Your task to perform on an android device: turn off airplane mode Image 0: 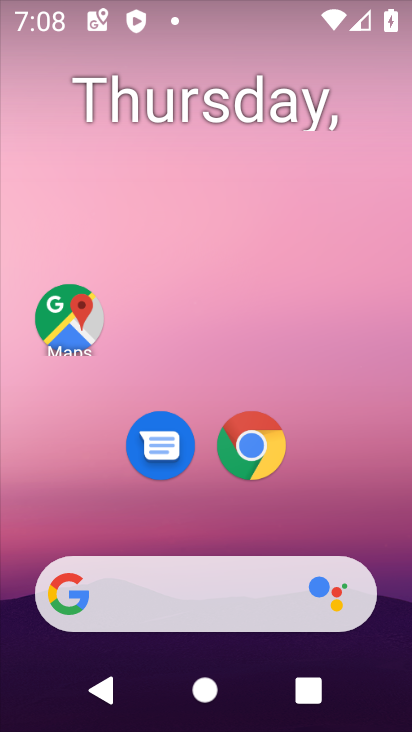
Step 0: drag from (351, 381) to (353, 269)
Your task to perform on an android device: turn off airplane mode Image 1: 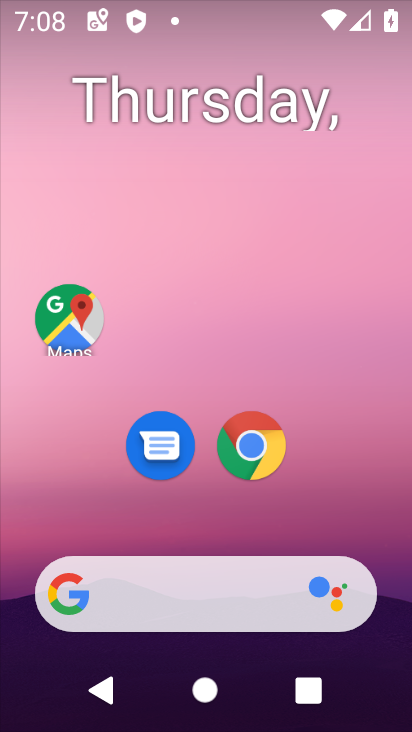
Step 1: drag from (319, 525) to (332, 126)
Your task to perform on an android device: turn off airplane mode Image 2: 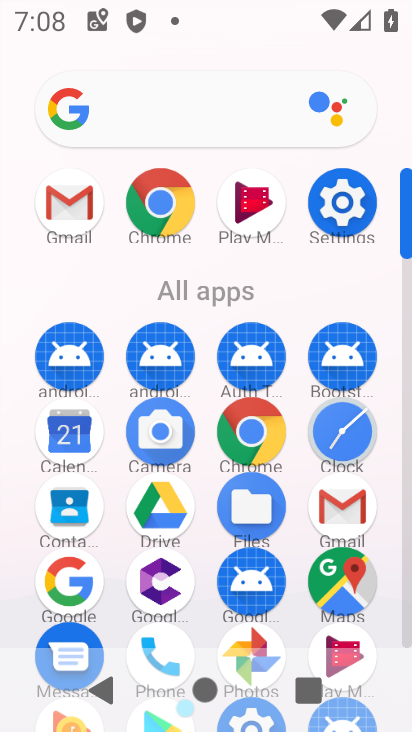
Step 2: click (333, 193)
Your task to perform on an android device: turn off airplane mode Image 3: 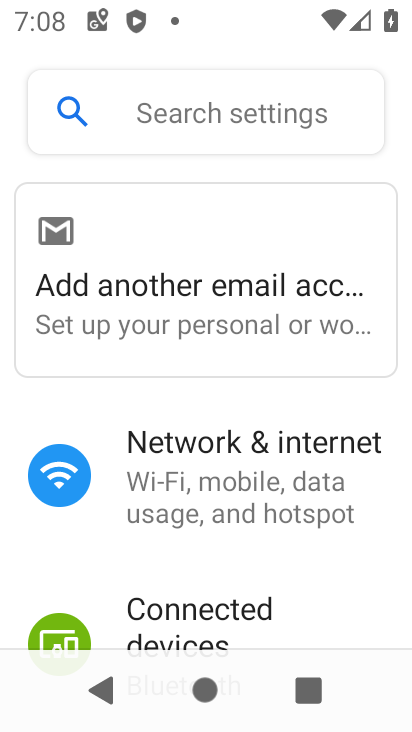
Step 3: click (225, 474)
Your task to perform on an android device: turn off airplane mode Image 4: 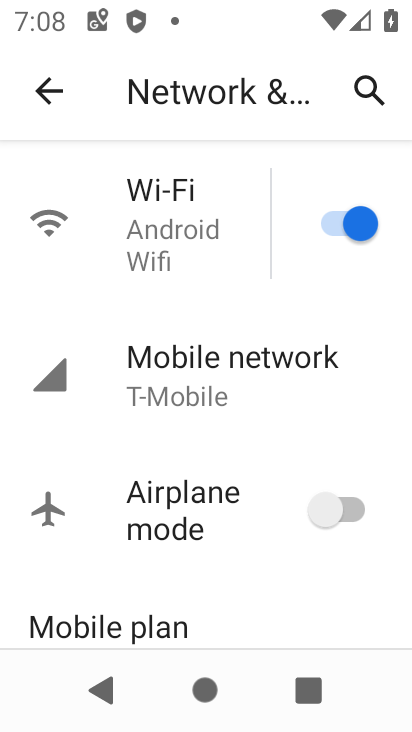
Step 4: task complete